Your task to perform on an android device: install app "Booking.com: Hotels and more" Image 0: 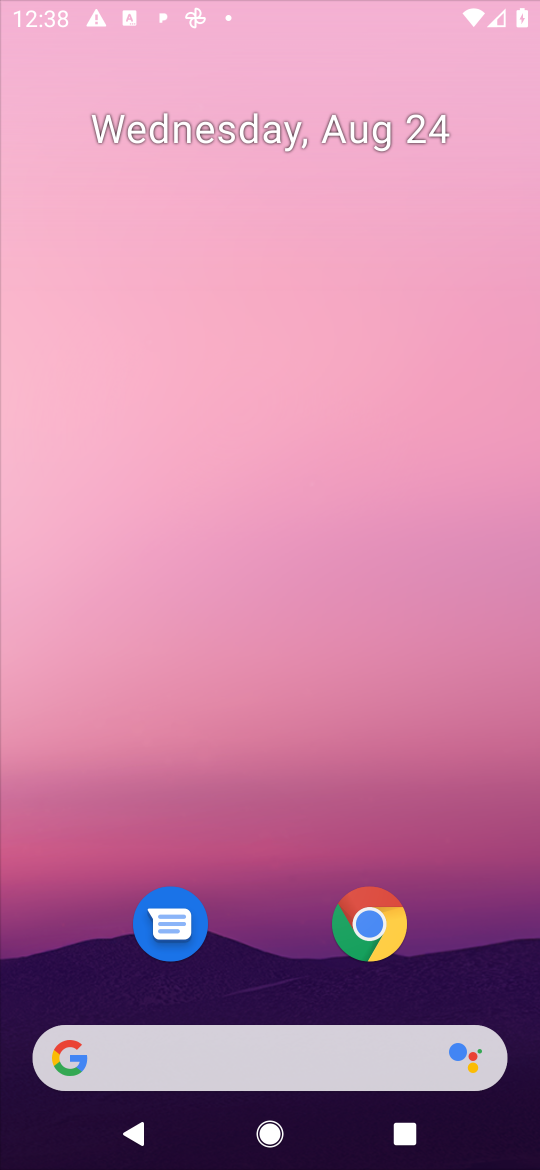
Step 0: press home button
Your task to perform on an android device: install app "Booking.com: Hotels and more" Image 1: 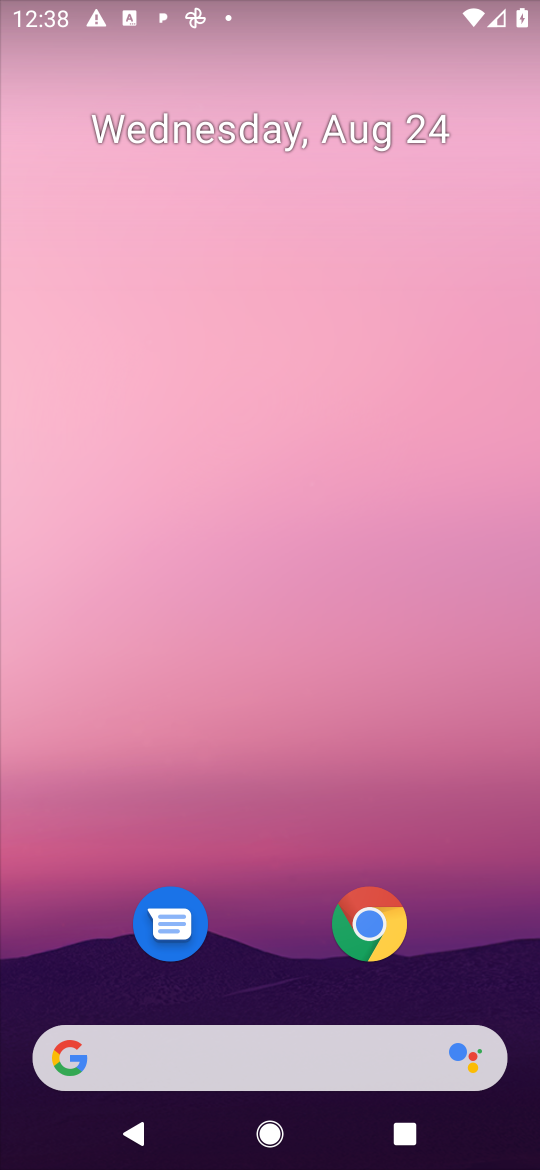
Step 1: drag from (479, 953) to (487, 226)
Your task to perform on an android device: install app "Booking.com: Hotels and more" Image 2: 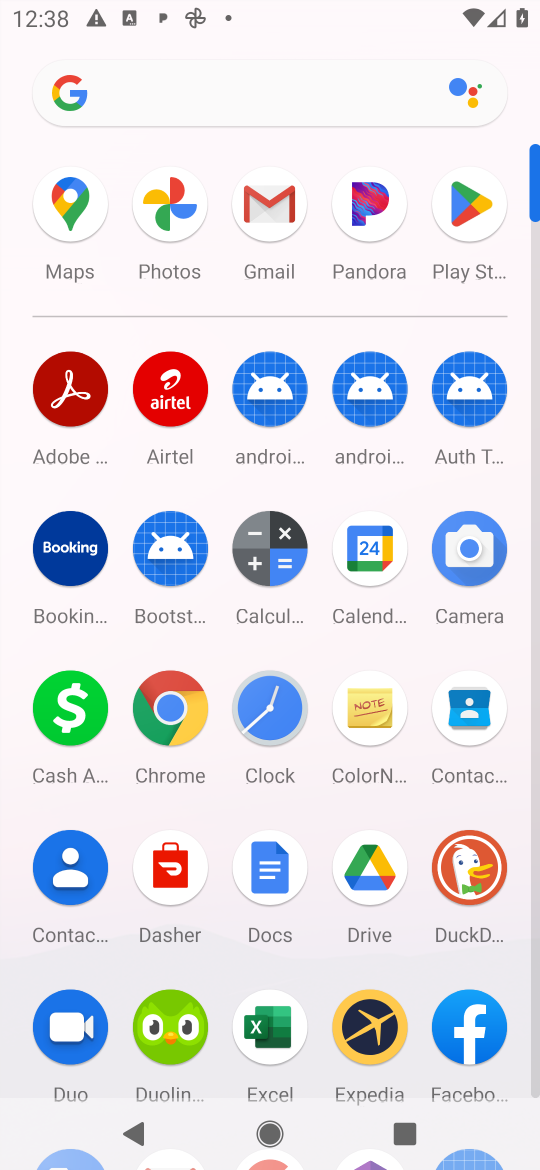
Step 2: click (458, 204)
Your task to perform on an android device: install app "Booking.com: Hotels and more" Image 3: 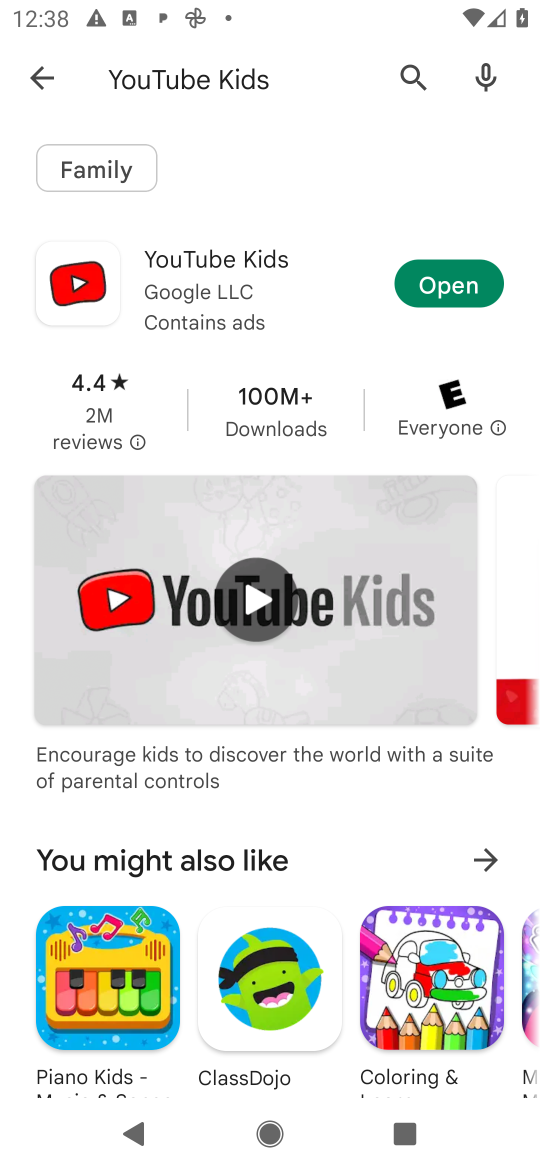
Step 3: press back button
Your task to perform on an android device: install app "Booking.com: Hotels and more" Image 4: 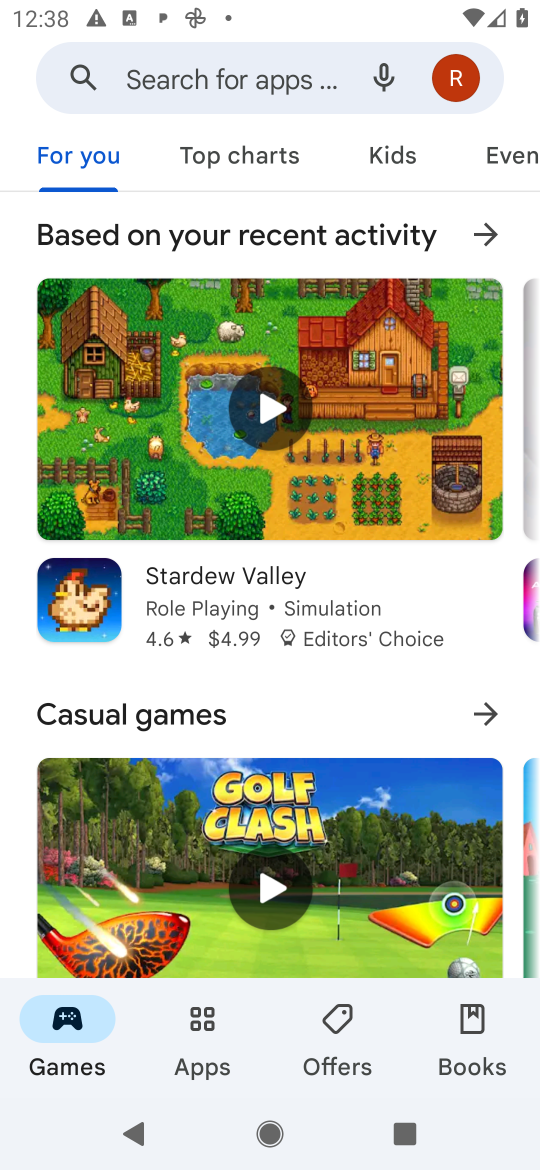
Step 4: click (256, 77)
Your task to perform on an android device: install app "Booking.com: Hotels and more" Image 5: 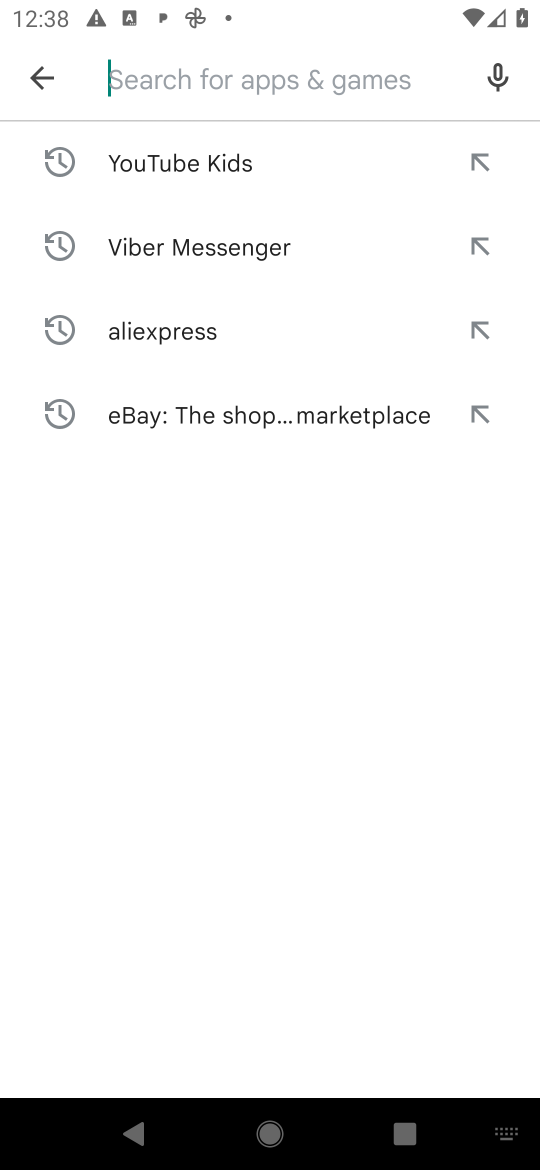
Step 5: type "Booking.com: Hotels and more"
Your task to perform on an android device: install app "Booking.com: Hotels and more" Image 6: 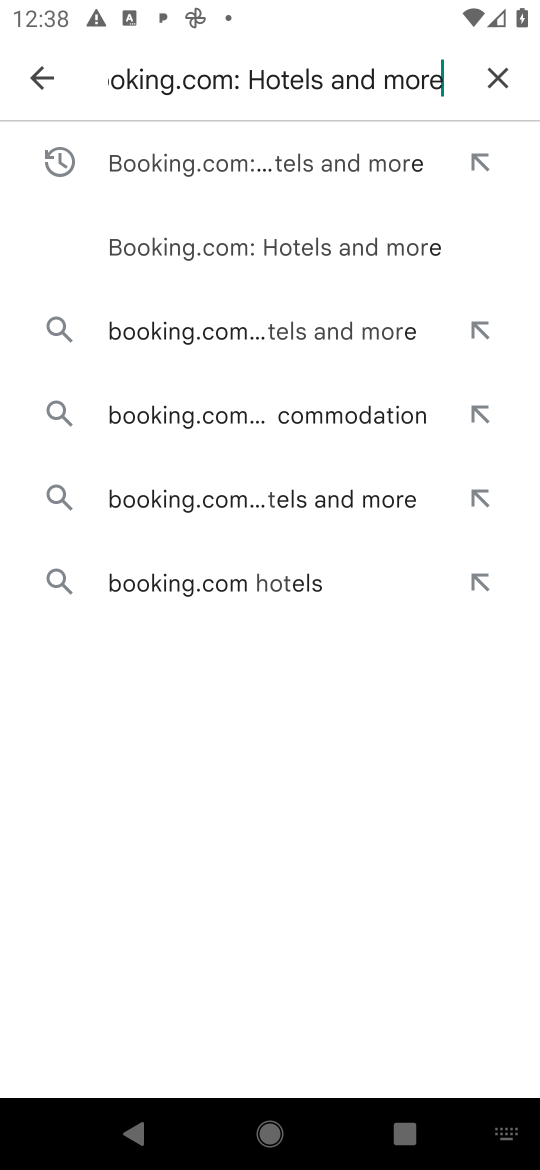
Step 6: press enter
Your task to perform on an android device: install app "Booking.com: Hotels and more" Image 7: 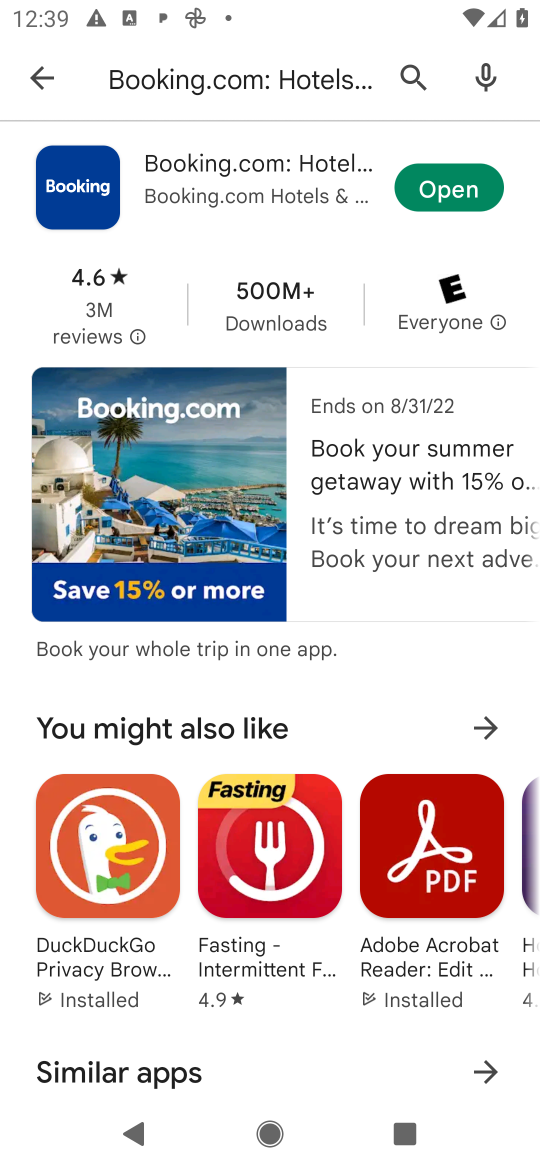
Step 7: task complete